Your task to perform on an android device: turn off data saver in the chrome app Image 0: 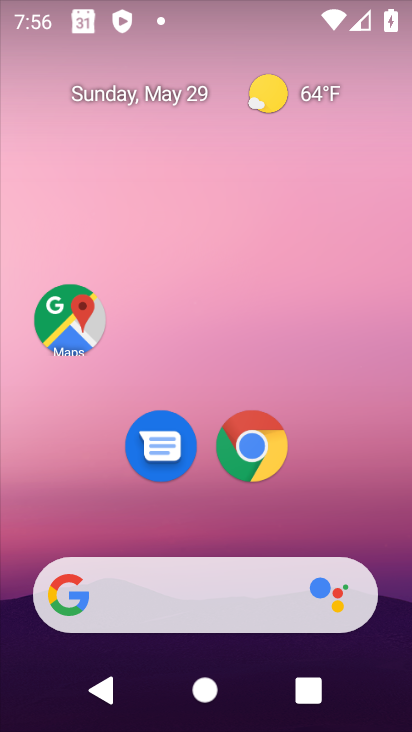
Step 0: drag from (204, 497) to (242, 260)
Your task to perform on an android device: turn off data saver in the chrome app Image 1: 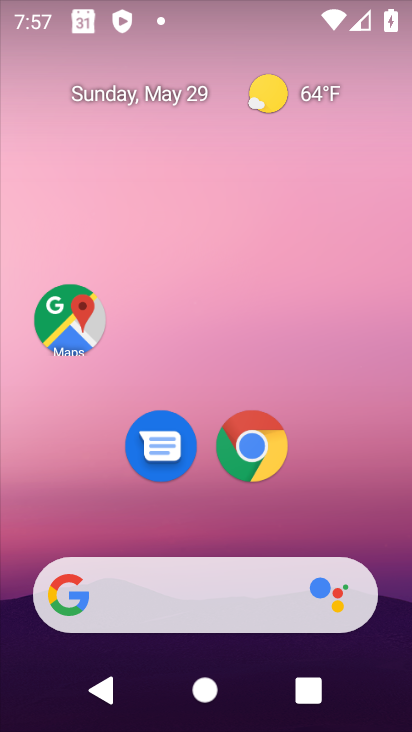
Step 1: drag from (214, 535) to (271, 63)
Your task to perform on an android device: turn off data saver in the chrome app Image 2: 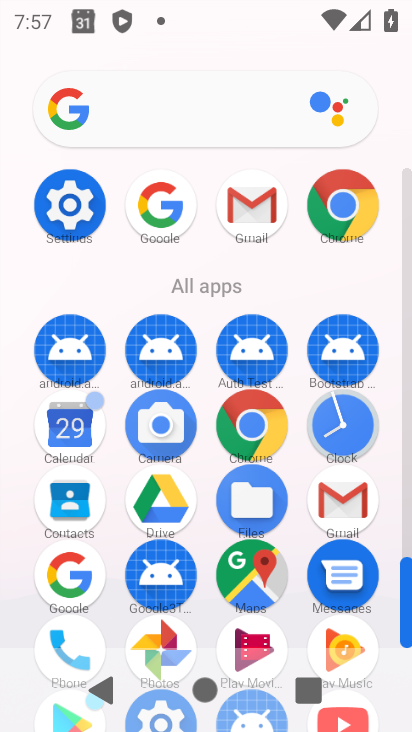
Step 2: click (344, 196)
Your task to perform on an android device: turn off data saver in the chrome app Image 3: 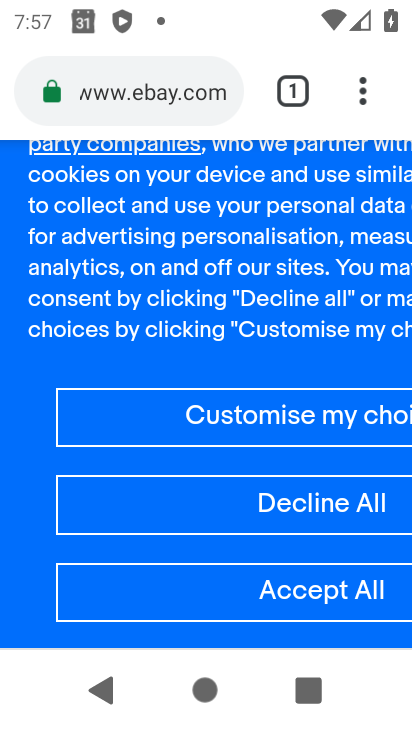
Step 3: drag from (365, 80) to (120, 491)
Your task to perform on an android device: turn off data saver in the chrome app Image 4: 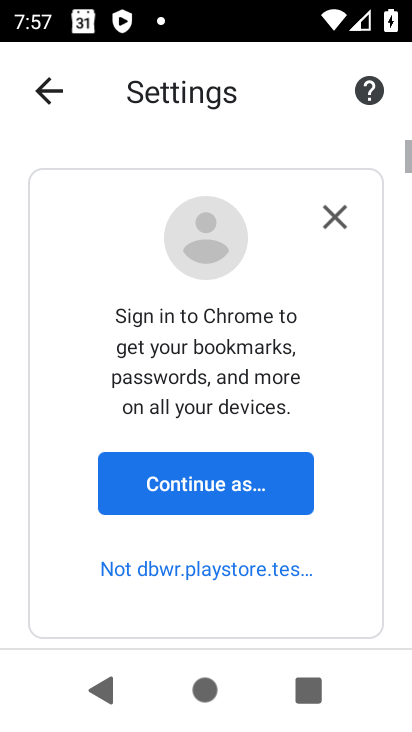
Step 4: drag from (188, 482) to (288, 30)
Your task to perform on an android device: turn off data saver in the chrome app Image 5: 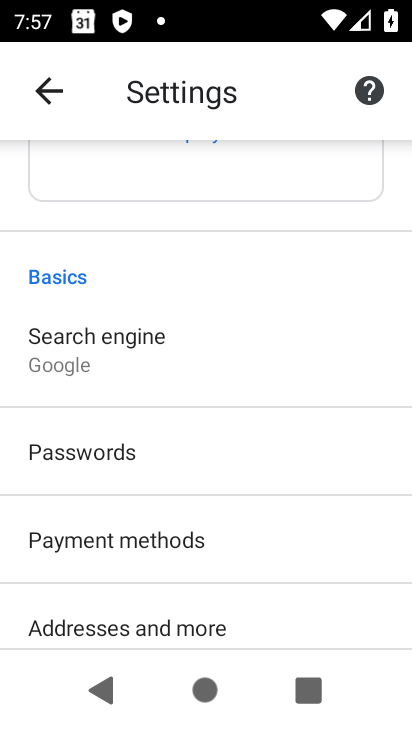
Step 5: click (316, 199)
Your task to perform on an android device: turn off data saver in the chrome app Image 6: 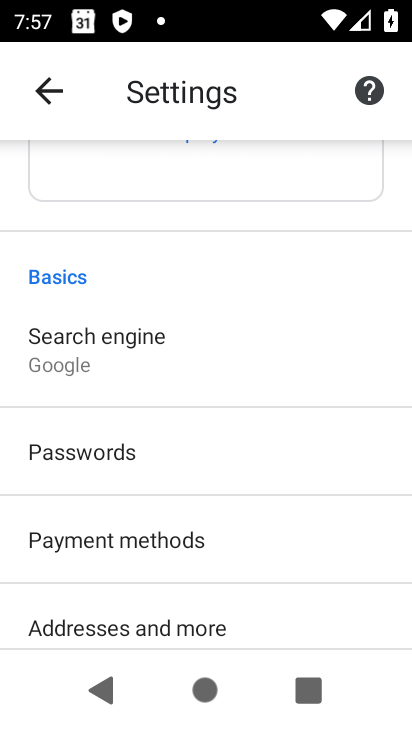
Step 6: drag from (172, 577) to (260, 172)
Your task to perform on an android device: turn off data saver in the chrome app Image 7: 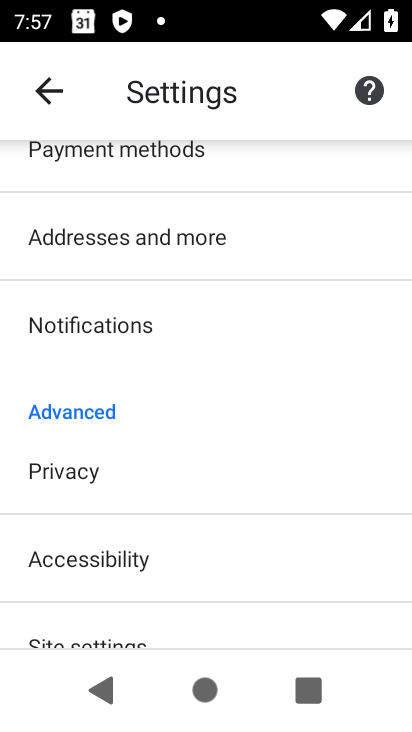
Step 7: drag from (145, 585) to (196, 141)
Your task to perform on an android device: turn off data saver in the chrome app Image 8: 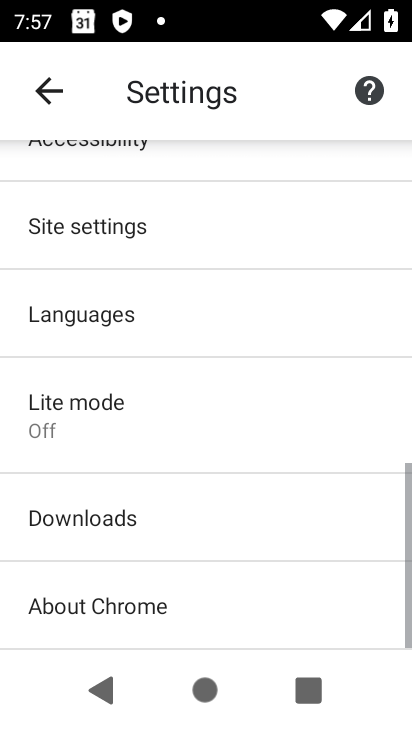
Step 8: click (174, 233)
Your task to perform on an android device: turn off data saver in the chrome app Image 9: 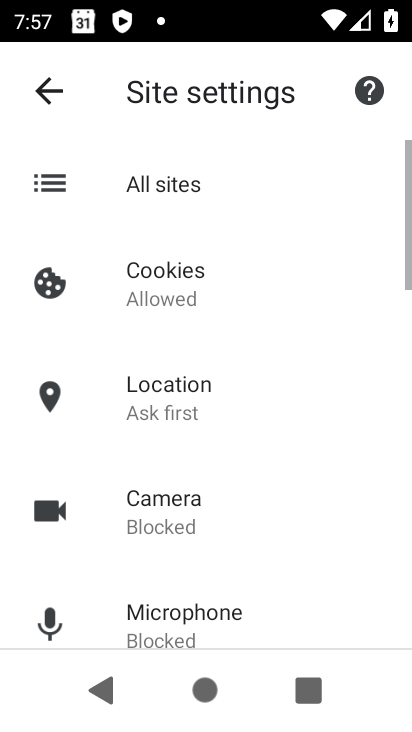
Step 9: drag from (260, 470) to (317, 105)
Your task to perform on an android device: turn off data saver in the chrome app Image 10: 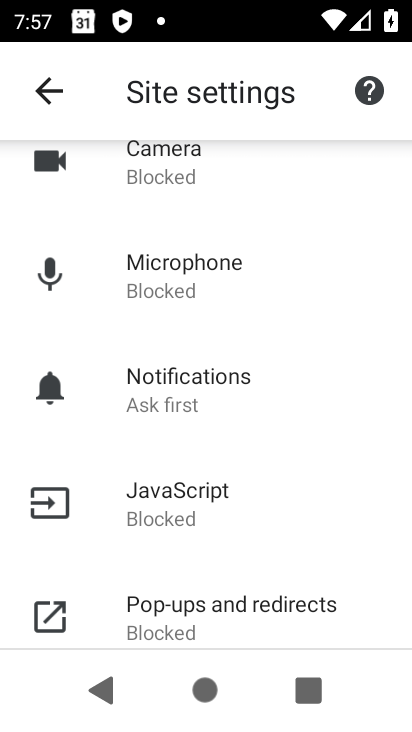
Step 10: click (66, 88)
Your task to perform on an android device: turn off data saver in the chrome app Image 11: 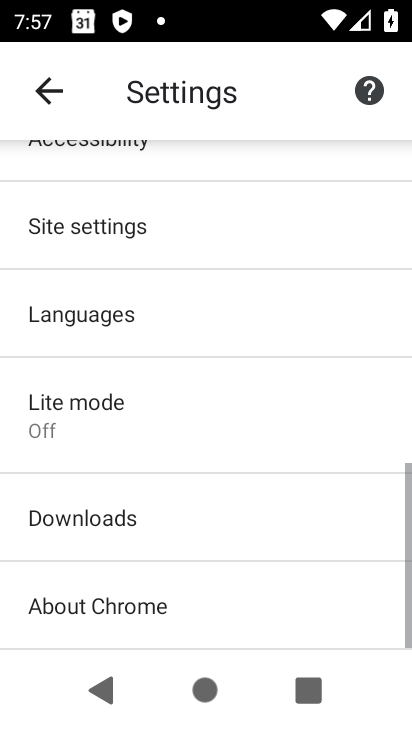
Step 11: drag from (224, 479) to (278, 162)
Your task to perform on an android device: turn off data saver in the chrome app Image 12: 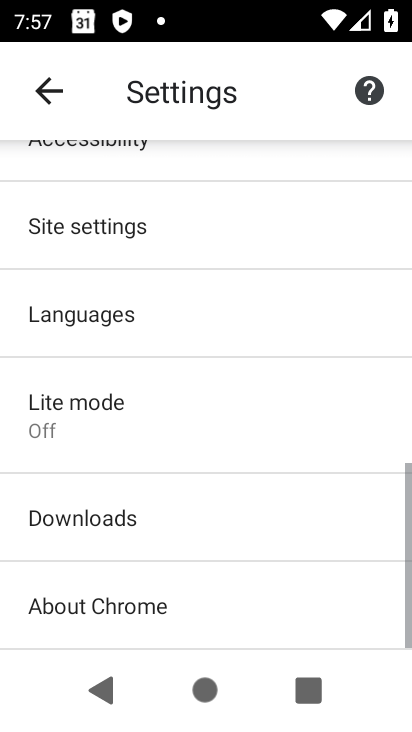
Step 12: click (163, 403)
Your task to perform on an android device: turn off data saver in the chrome app Image 13: 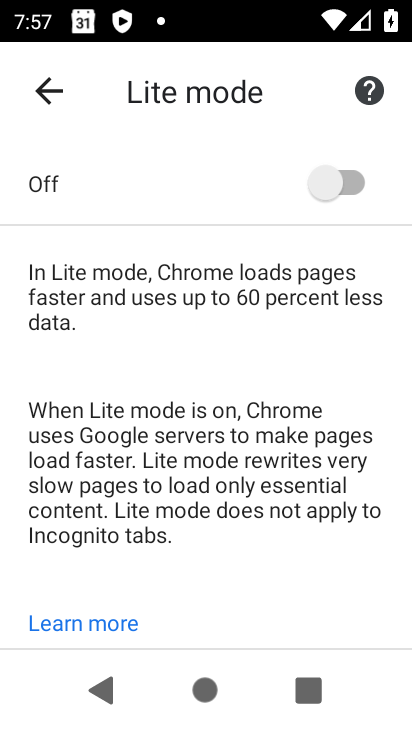
Step 13: task complete